Your task to perform on an android device: Open Chrome and go to settings Image 0: 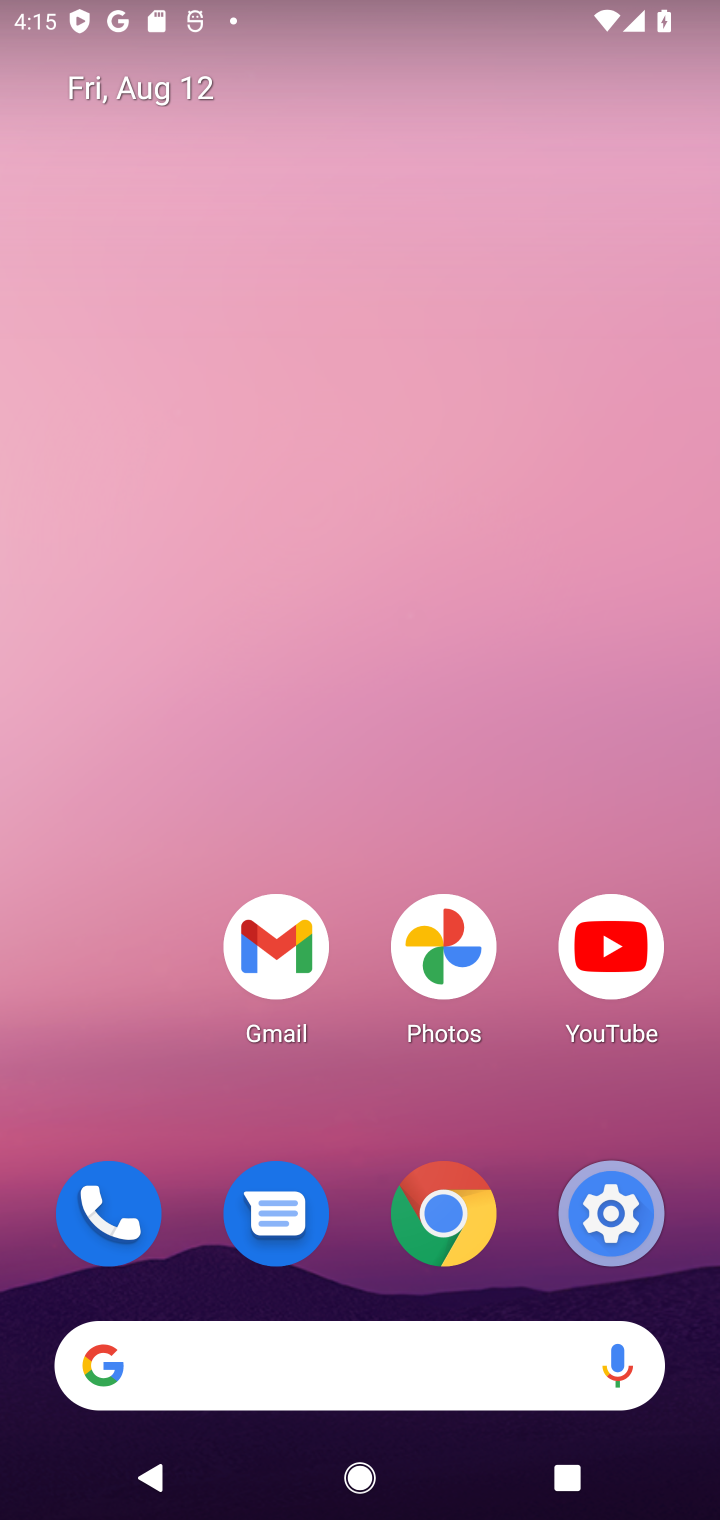
Step 0: drag from (363, 1031) to (521, 127)
Your task to perform on an android device: Open Chrome and go to settings Image 1: 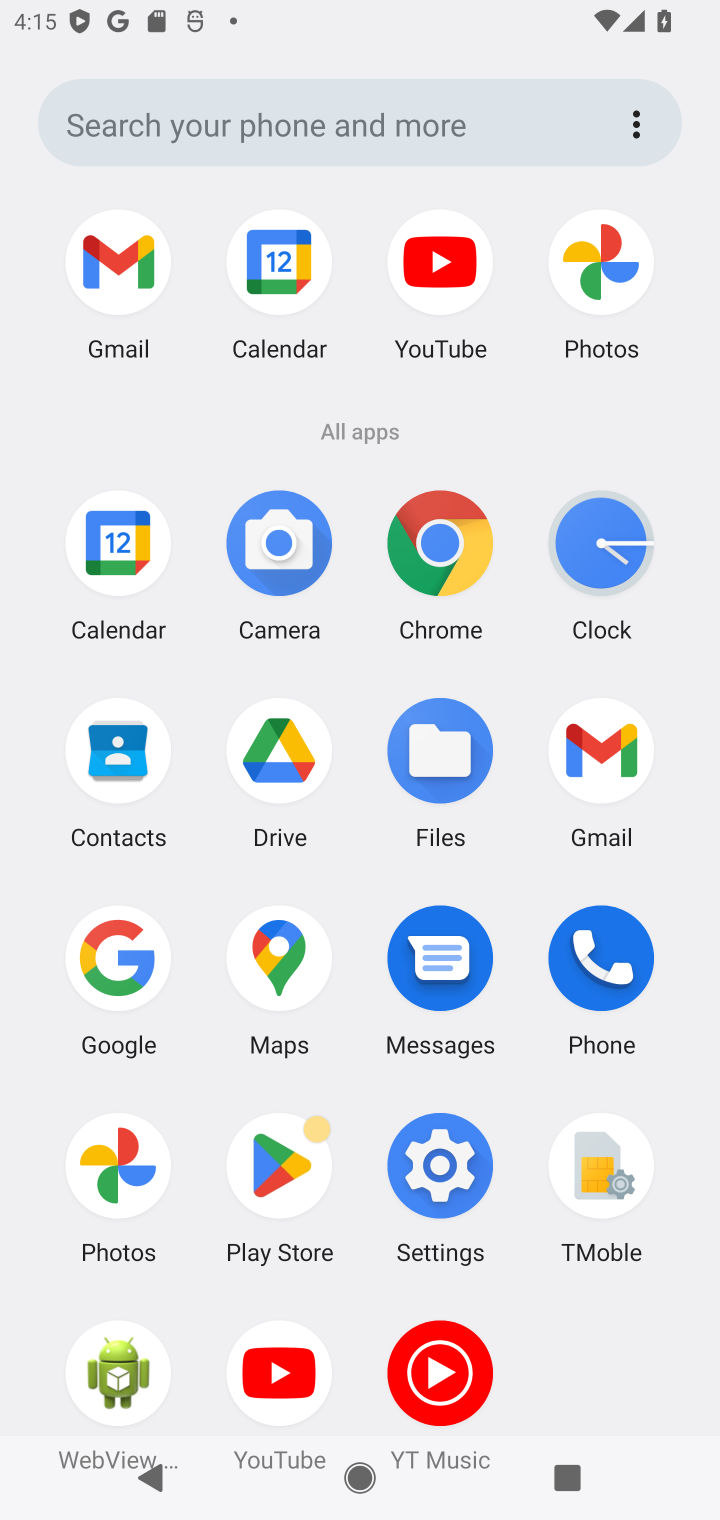
Step 1: click (448, 539)
Your task to perform on an android device: Open Chrome and go to settings Image 2: 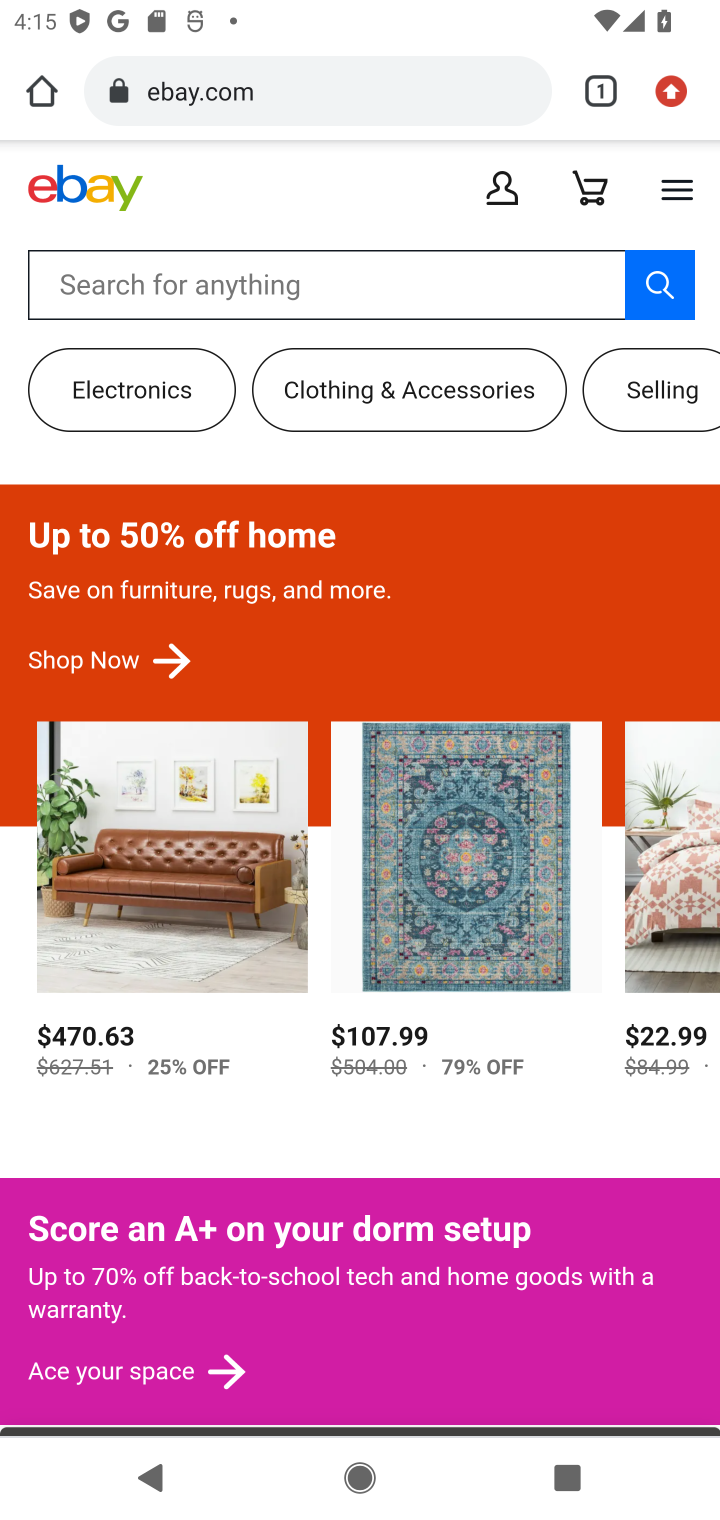
Step 2: task complete